Your task to perform on an android device: check storage Image 0: 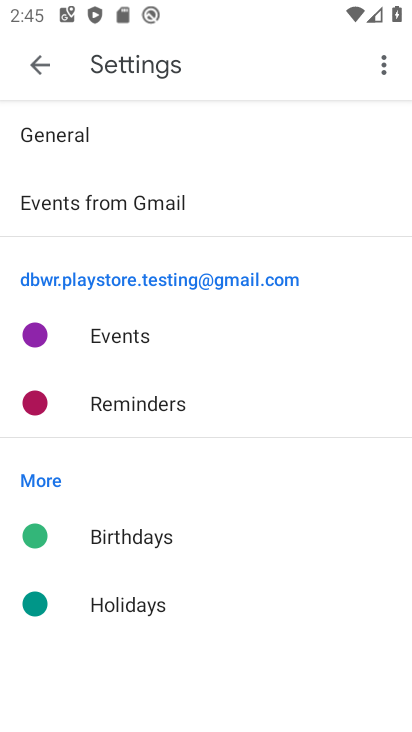
Step 0: press home button
Your task to perform on an android device: check storage Image 1: 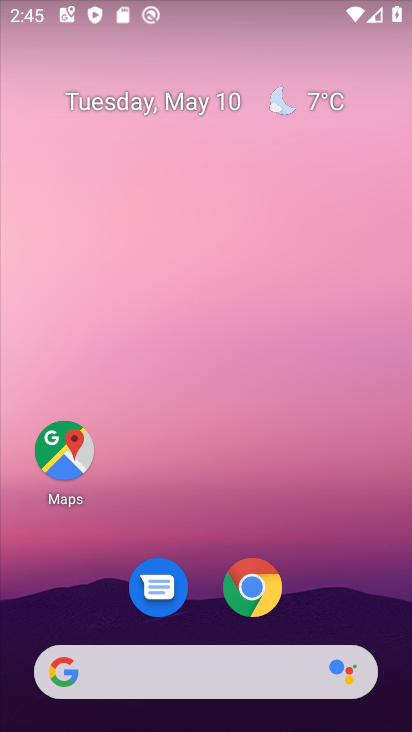
Step 1: drag from (185, 490) to (171, 107)
Your task to perform on an android device: check storage Image 2: 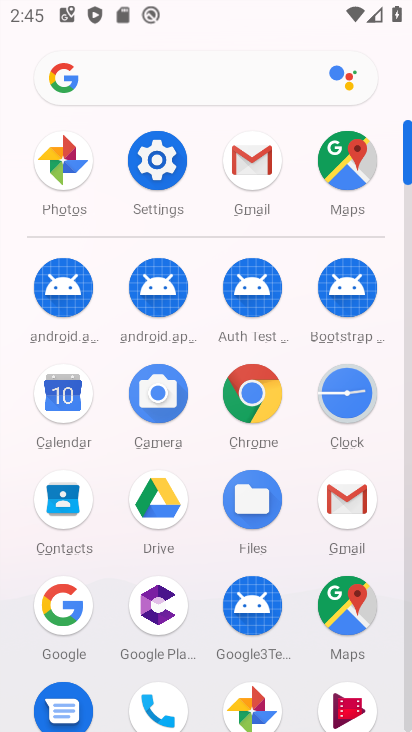
Step 2: drag from (229, 374) to (203, 504)
Your task to perform on an android device: check storage Image 3: 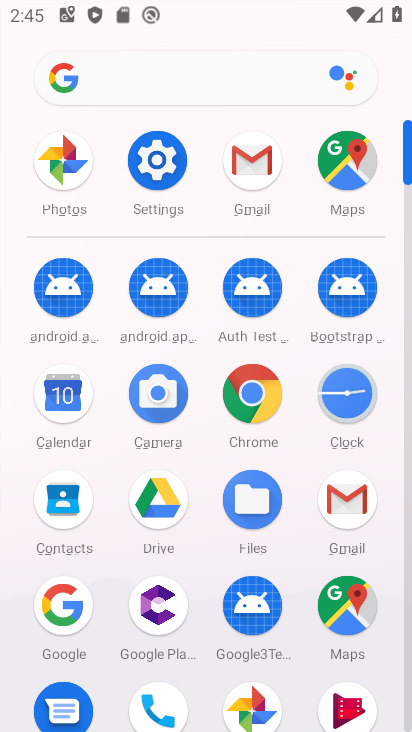
Step 3: click (154, 179)
Your task to perform on an android device: check storage Image 4: 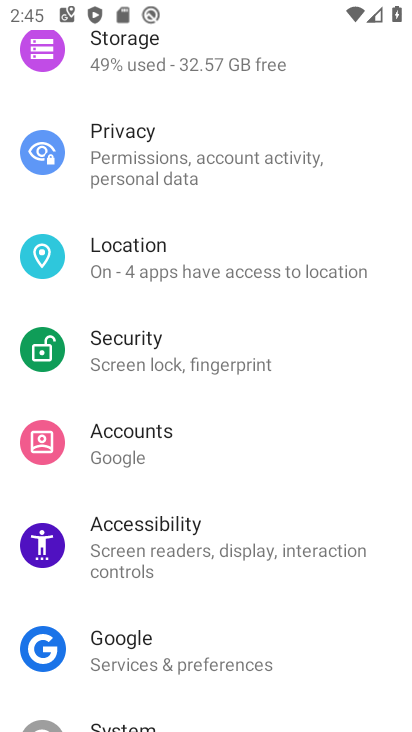
Step 4: drag from (208, 537) to (161, 469)
Your task to perform on an android device: check storage Image 5: 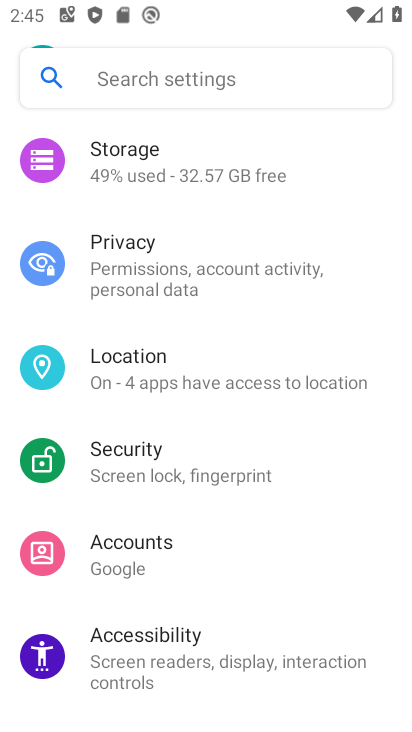
Step 5: click (190, 181)
Your task to perform on an android device: check storage Image 6: 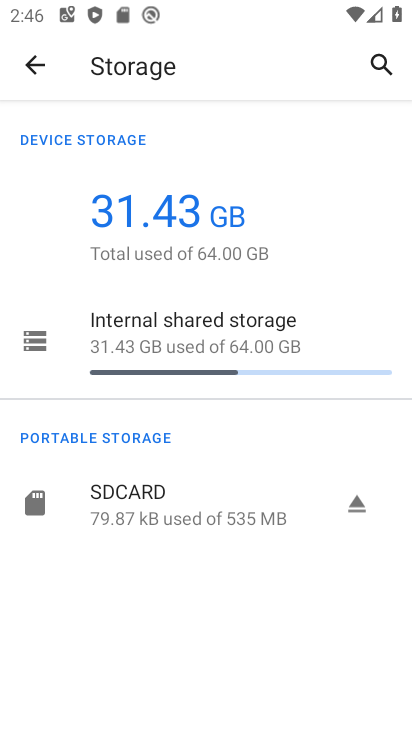
Step 6: task complete